Your task to perform on an android device: turn smart compose on in the gmail app Image 0: 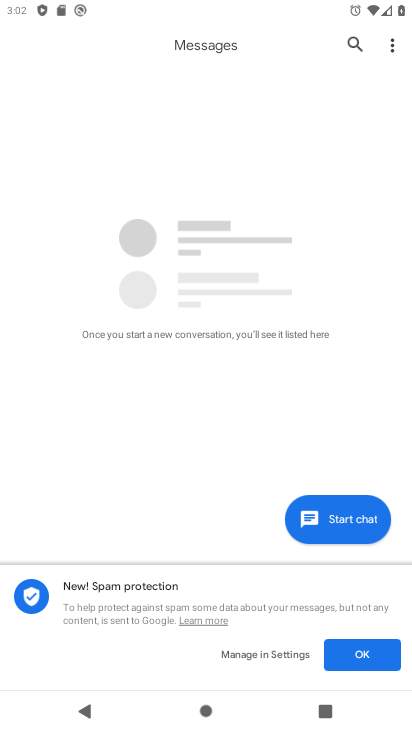
Step 0: press home button
Your task to perform on an android device: turn smart compose on in the gmail app Image 1: 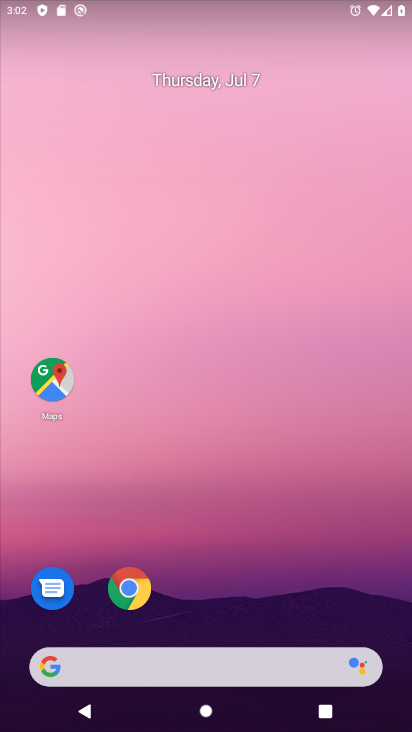
Step 1: drag from (181, 653) to (191, 258)
Your task to perform on an android device: turn smart compose on in the gmail app Image 2: 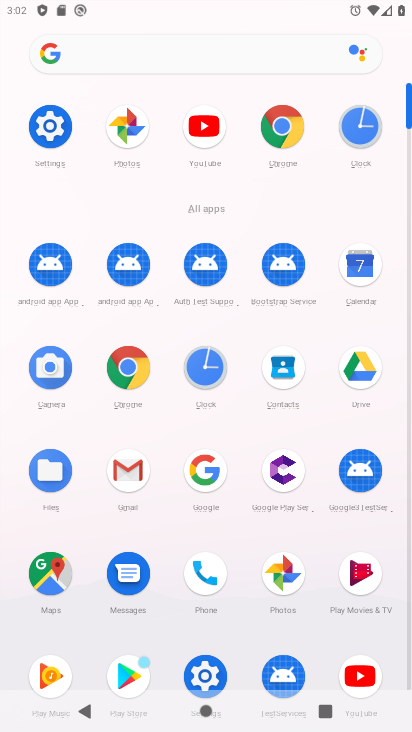
Step 2: click (134, 466)
Your task to perform on an android device: turn smart compose on in the gmail app Image 3: 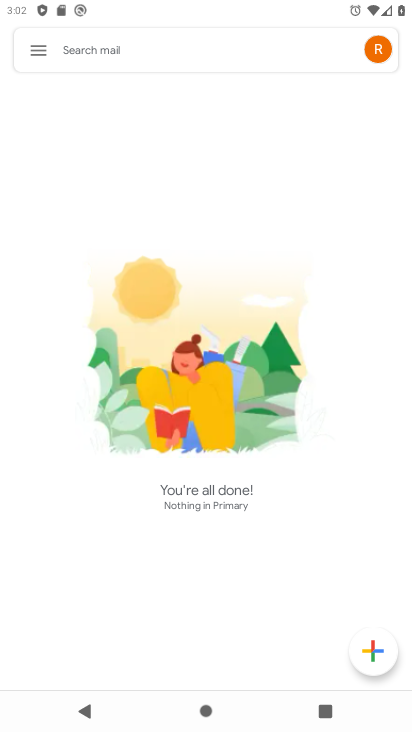
Step 3: click (37, 54)
Your task to perform on an android device: turn smart compose on in the gmail app Image 4: 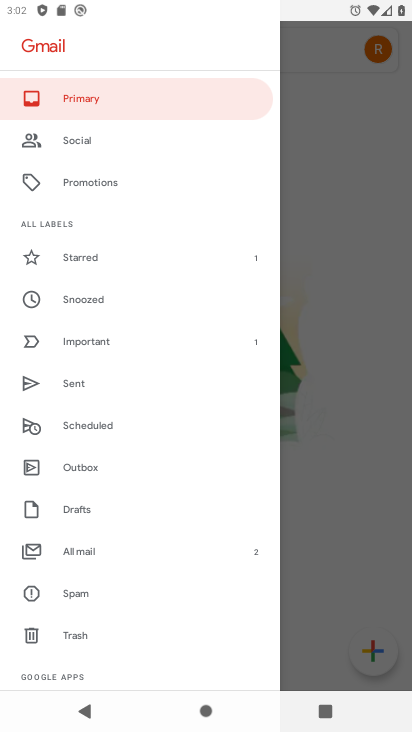
Step 4: drag from (98, 664) to (145, 150)
Your task to perform on an android device: turn smart compose on in the gmail app Image 5: 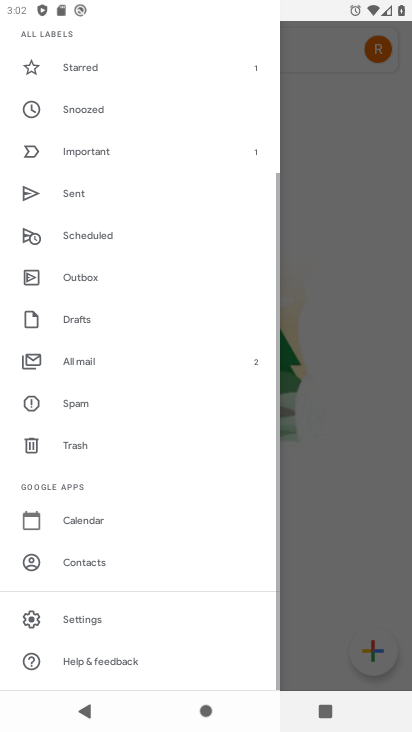
Step 5: click (96, 615)
Your task to perform on an android device: turn smart compose on in the gmail app Image 6: 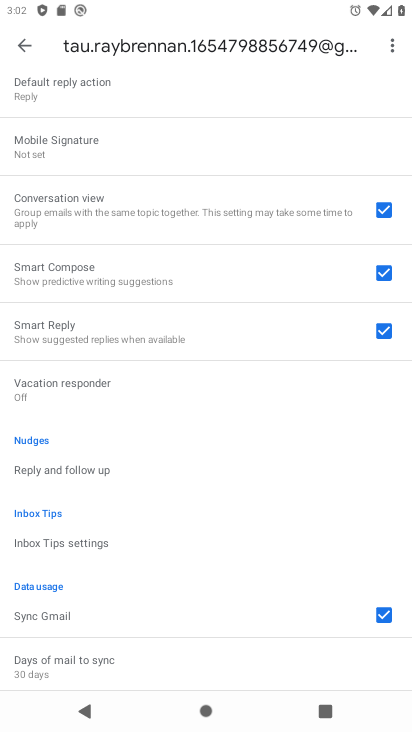
Step 6: task complete